Your task to perform on an android device: Open calendar and show me the first week of next month Image 0: 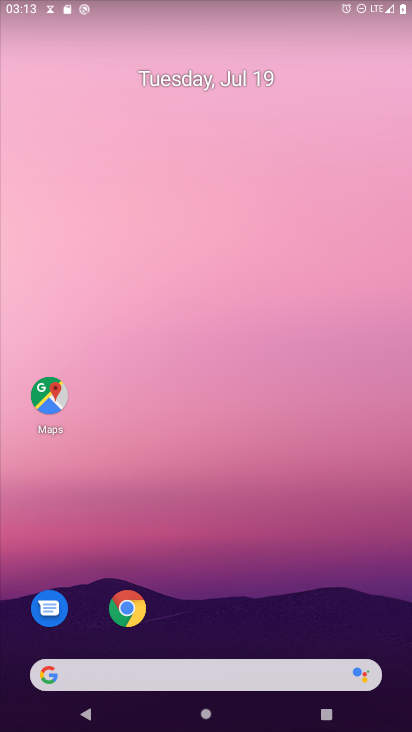
Step 0: drag from (199, 690) to (217, 106)
Your task to perform on an android device: Open calendar and show me the first week of next month Image 1: 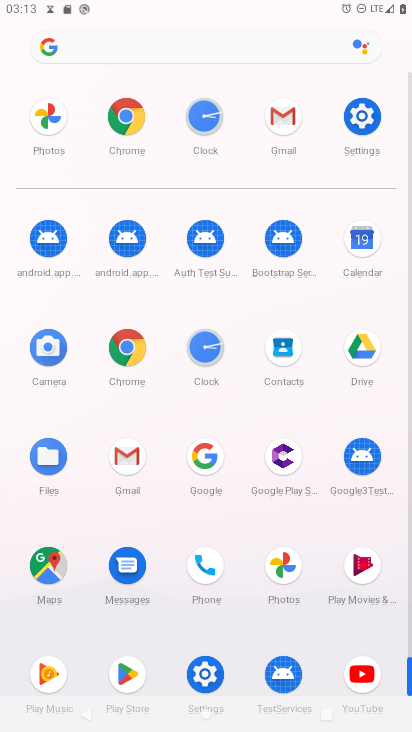
Step 1: click (366, 241)
Your task to perform on an android device: Open calendar and show me the first week of next month Image 2: 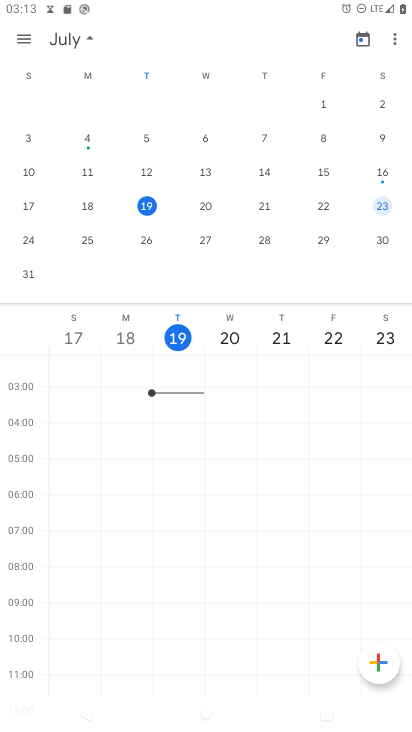
Step 2: drag from (345, 219) to (19, 219)
Your task to perform on an android device: Open calendar and show me the first week of next month Image 3: 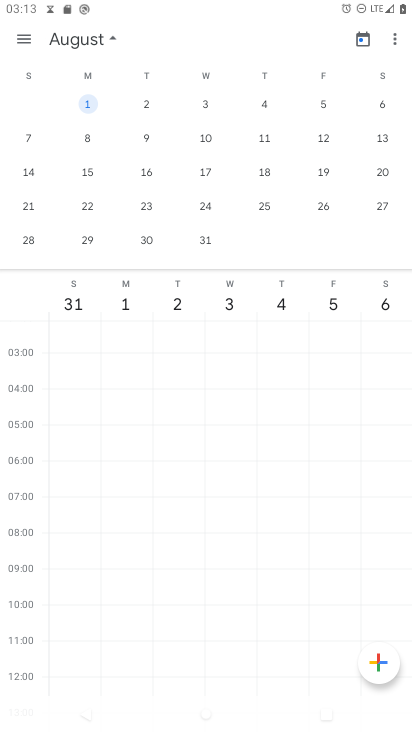
Step 3: click (268, 105)
Your task to perform on an android device: Open calendar and show me the first week of next month Image 4: 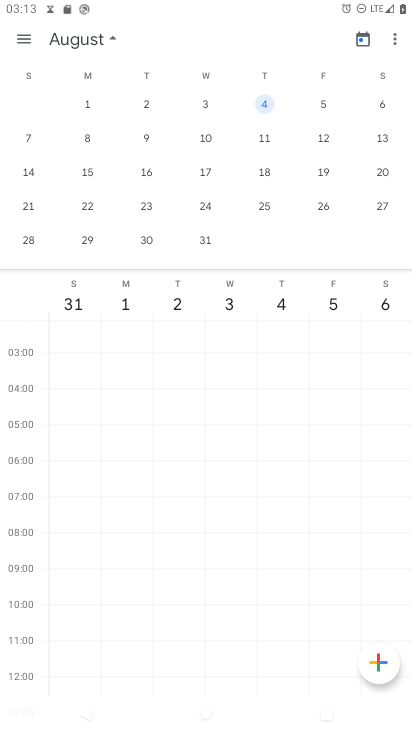
Step 4: task complete